Your task to perform on an android device: delete location history Image 0: 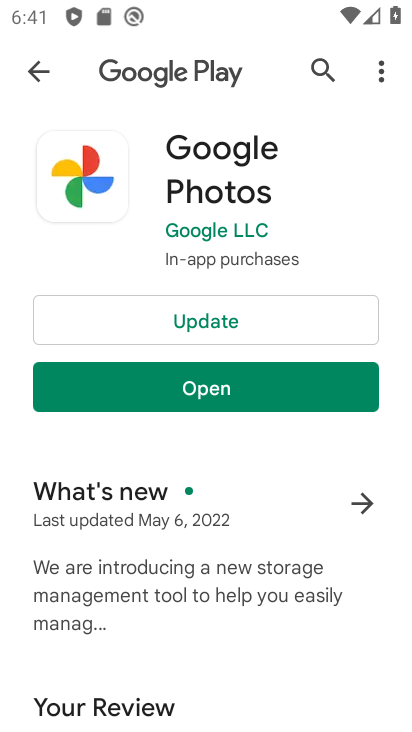
Step 0: press home button
Your task to perform on an android device: delete location history Image 1: 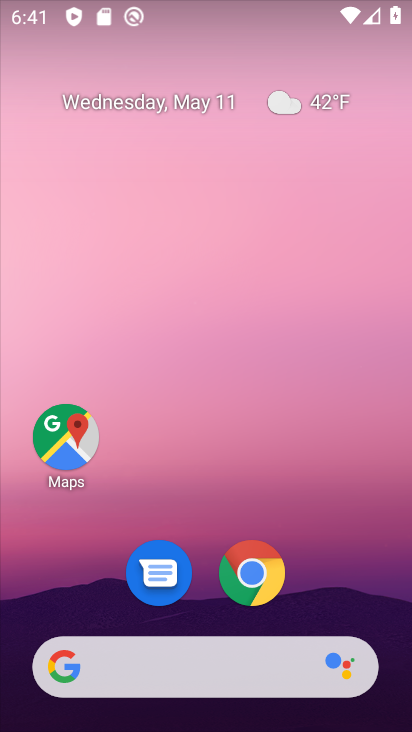
Step 1: drag from (311, 586) to (311, 143)
Your task to perform on an android device: delete location history Image 2: 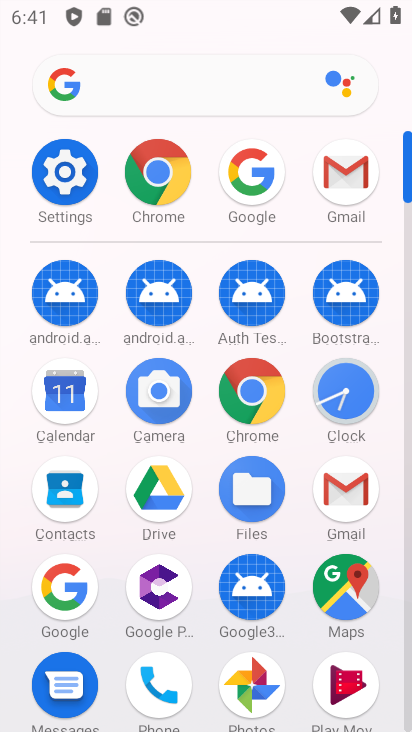
Step 2: click (357, 606)
Your task to perform on an android device: delete location history Image 3: 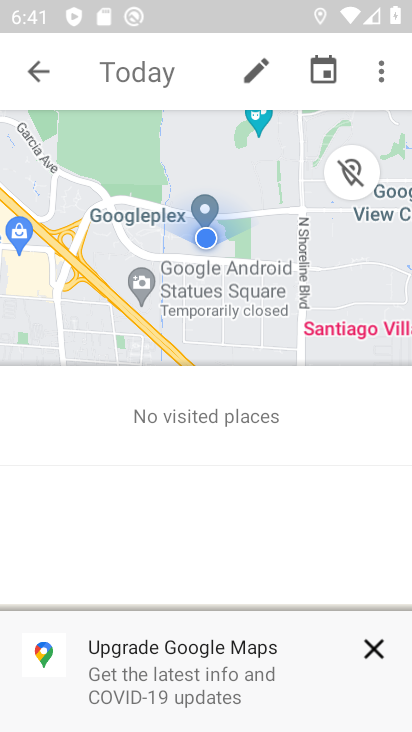
Step 3: click (37, 75)
Your task to perform on an android device: delete location history Image 4: 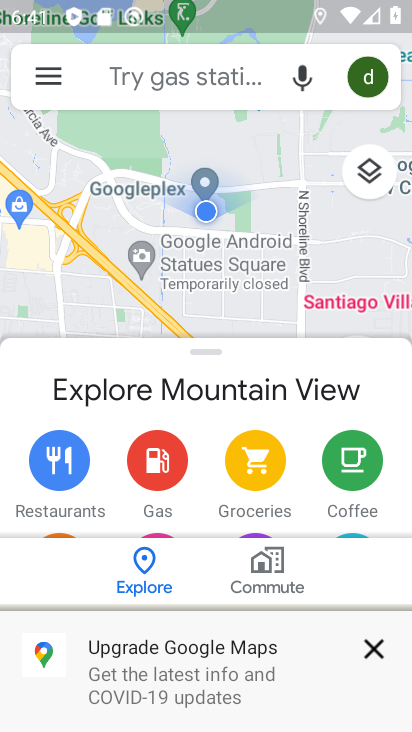
Step 4: click (46, 73)
Your task to perform on an android device: delete location history Image 5: 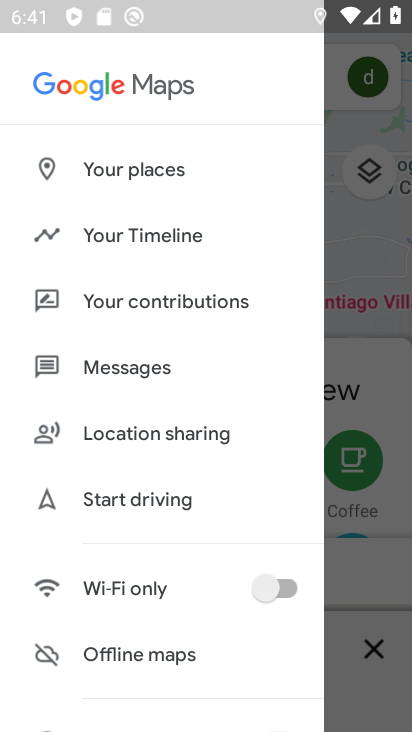
Step 5: click (237, 365)
Your task to perform on an android device: delete location history Image 6: 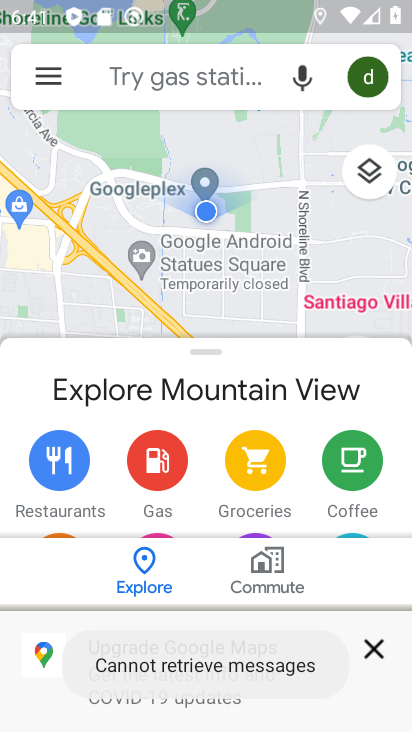
Step 6: click (35, 74)
Your task to perform on an android device: delete location history Image 7: 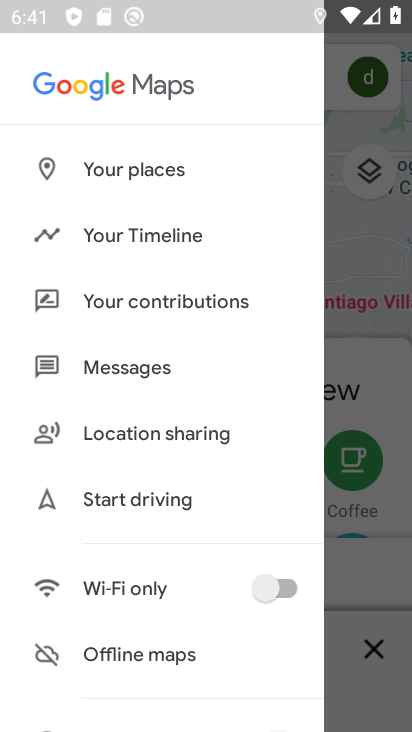
Step 7: click (152, 240)
Your task to perform on an android device: delete location history Image 8: 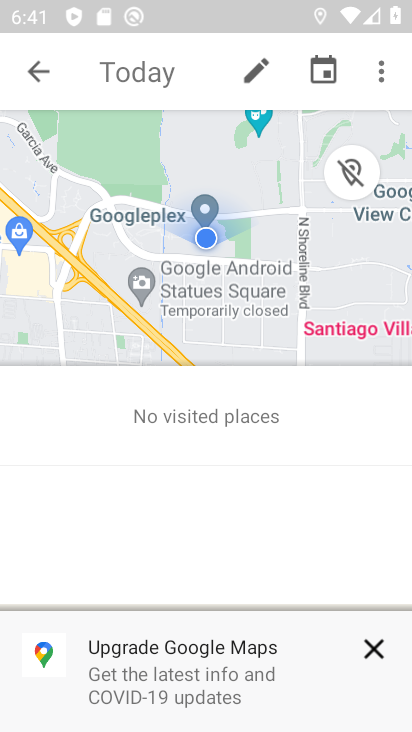
Step 8: click (379, 74)
Your task to perform on an android device: delete location history Image 9: 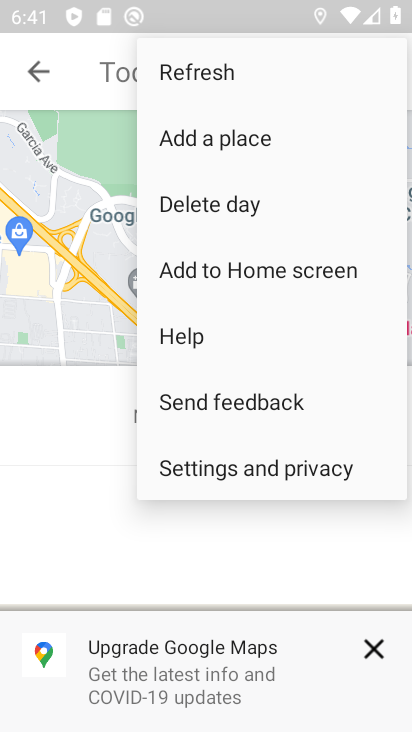
Step 9: click (258, 471)
Your task to perform on an android device: delete location history Image 10: 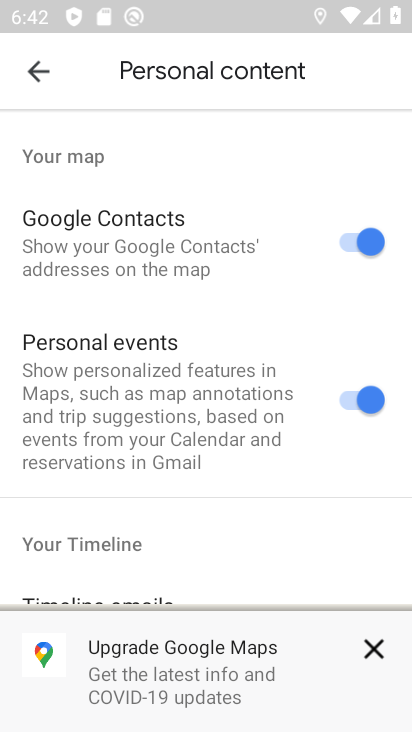
Step 10: drag from (204, 487) to (235, 254)
Your task to perform on an android device: delete location history Image 11: 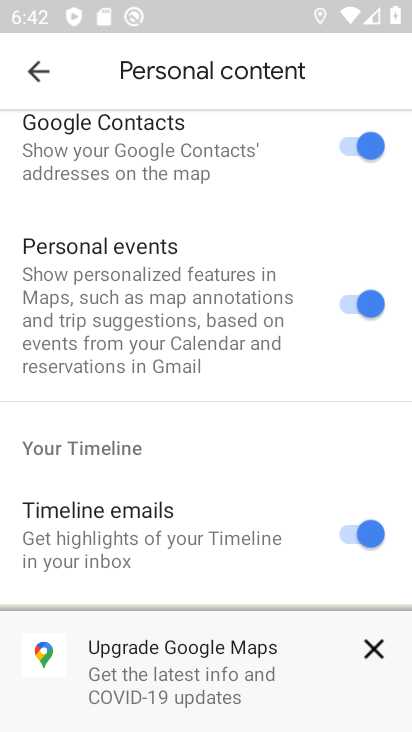
Step 11: drag from (194, 564) to (213, 266)
Your task to perform on an android device: delete location history Image 12: 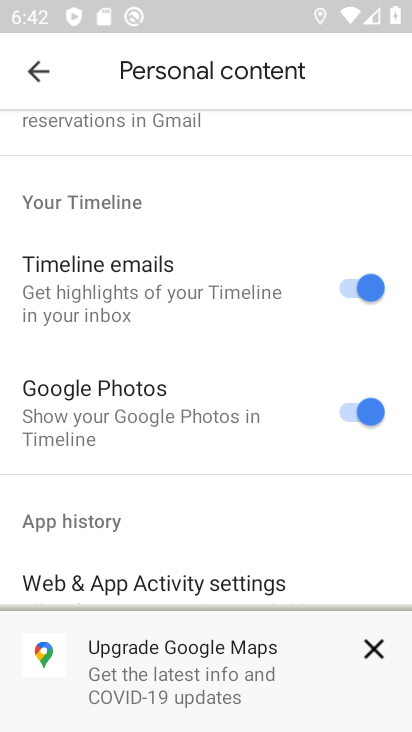
Step 12: drag from (176, 540) to (228, 282)
Your task to perform on an android device: delete location history Image 13: 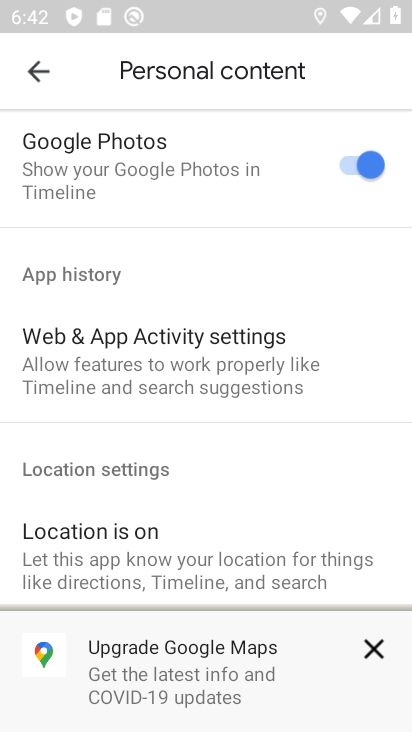
Step 13: drag from (197, 333) to (207, 272)
Your task to perform on an android device: delete location history Image 14: 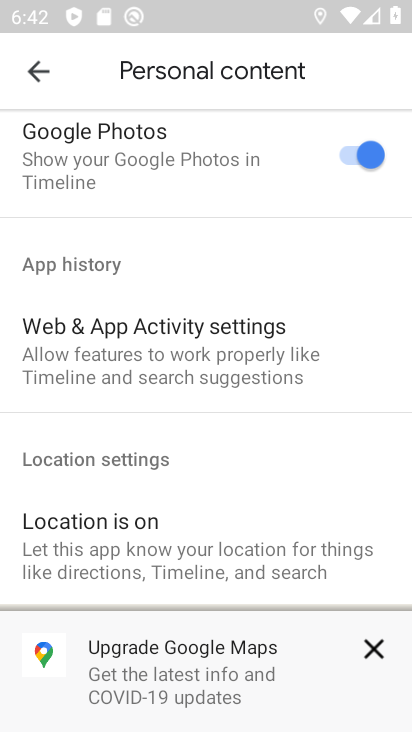
Step 14: drag from (231, 551) to (240, 266)
Your task to perform on an android device: delete location history Image 15: 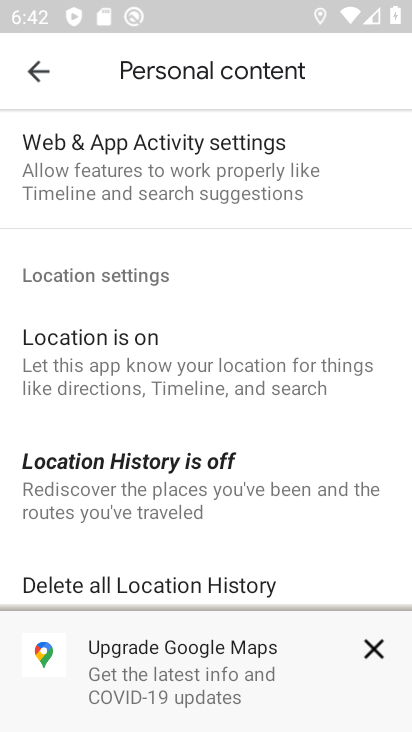
Step 15: drag from (148, 508) to (192, 341)
Your task to perform on an android device: delete location history Image 16: 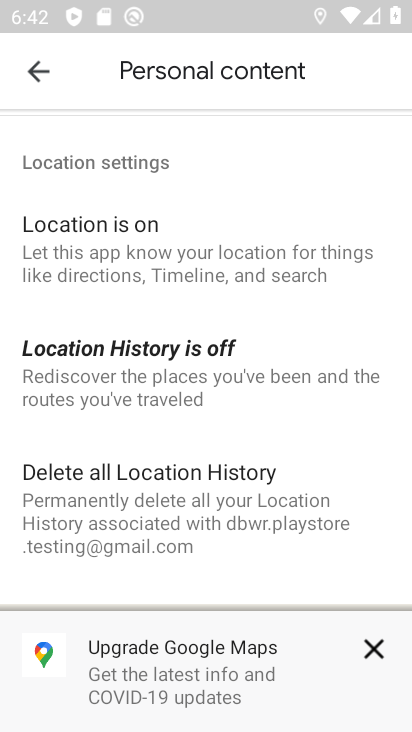
Step 16: click (152, 495)
Your task to perform on an android device: delete location history Image 17: 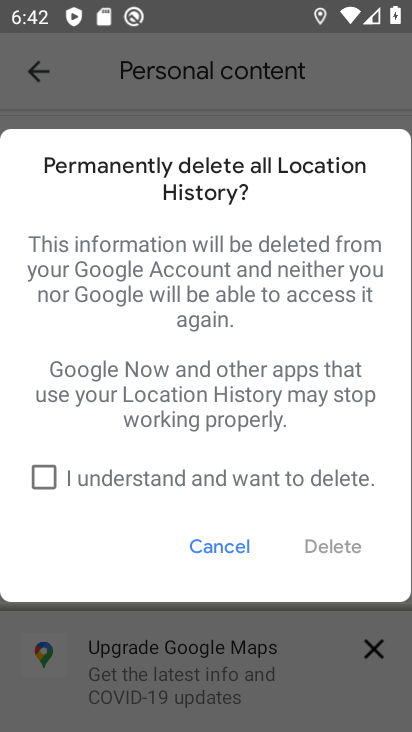
Step 17: click (45, 473)
Your task to perform on an android device: delete location history Image 18: 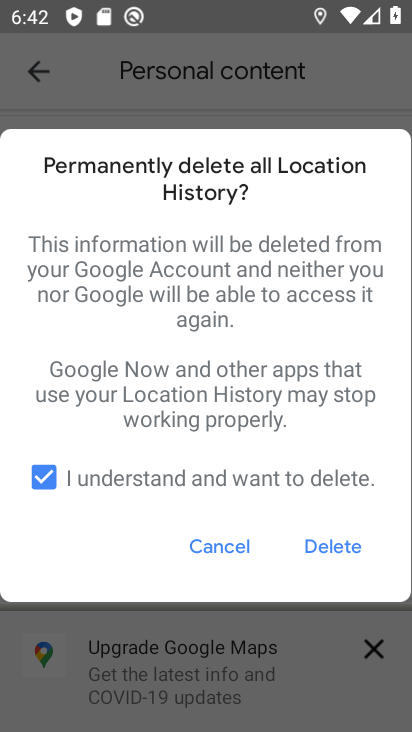
Step 18: click (331, 547)
Your task to perform on an android device: delete location history Image 19: 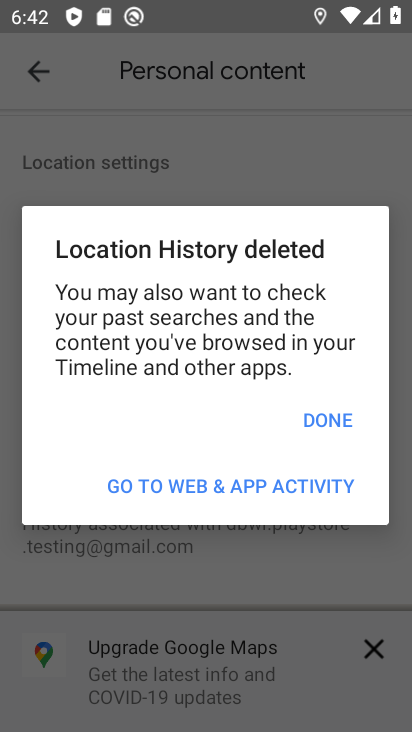
Step 19: click (322, 424)
Your task to perform on an android device: delete location history Image 20: 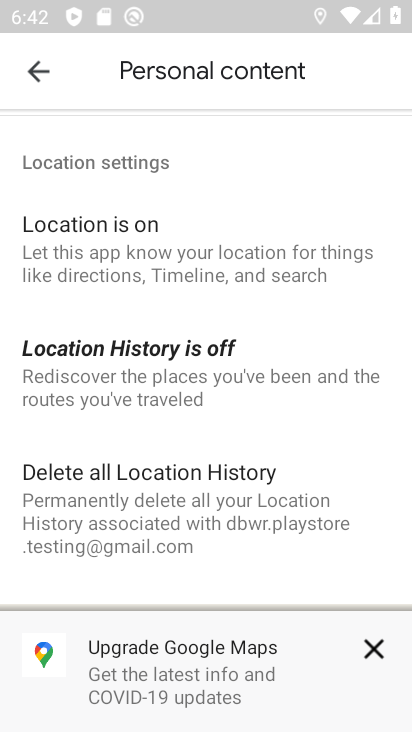
Step 20: task complete